Your task to perform on an android device: Show me popular games on the Play Store Image 0: 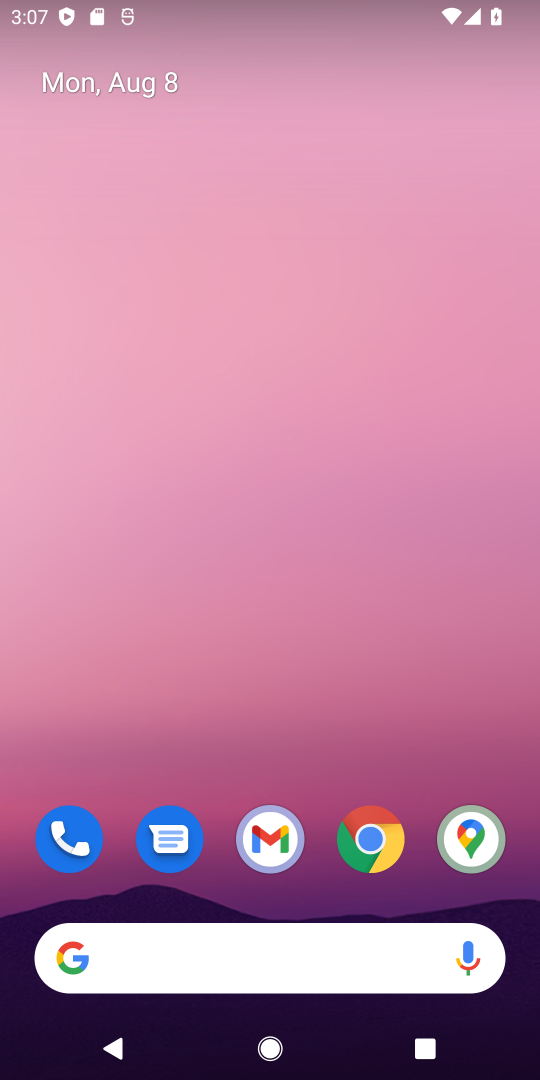
Step 0: drag from (213, 909) to (119, 80)
Your task to perform on an android device: Show me popular games on the Play Store Image 1: 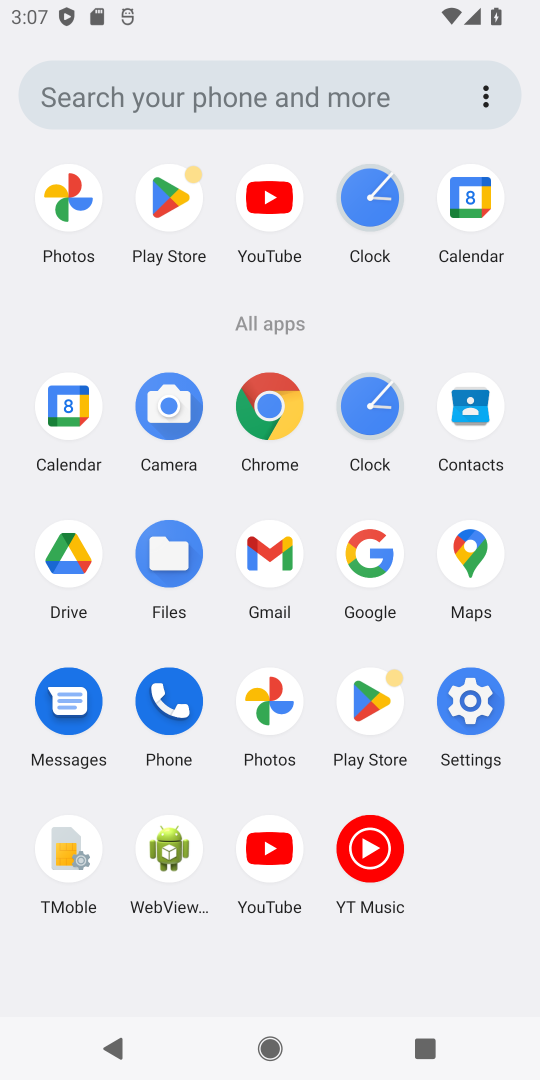
Step 1: click (370, 701)
Your task to perform on an android device: Show me popular games on the Play Store Image 2: 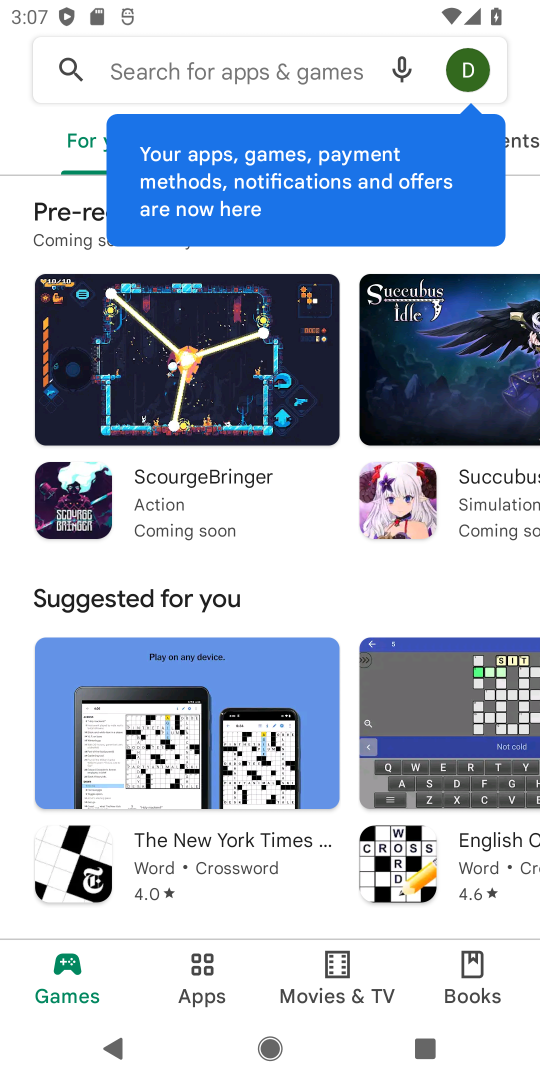
Step 2: task complete